Your task to perform on an android device: Go to CNN.com Image 0: 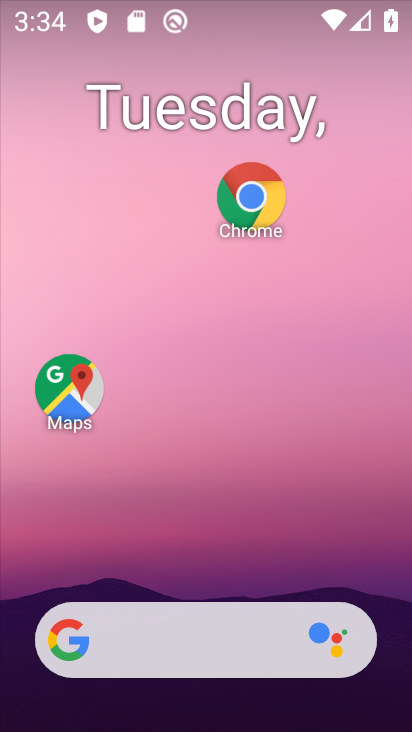
Step 0: click (136, 641)
Your task to perform on an android device: Go to CNN.com Image 1: 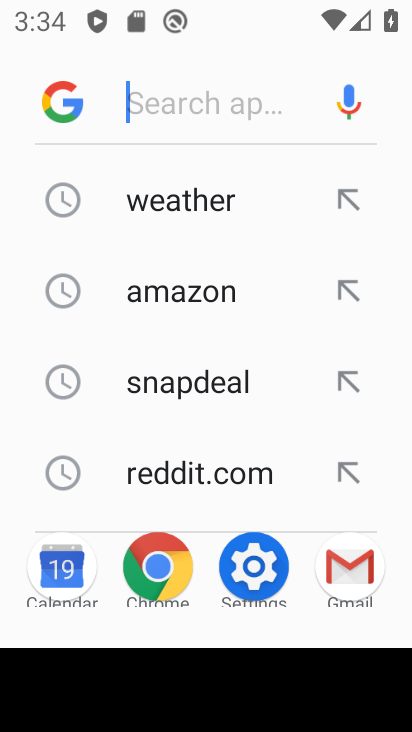
Step 1: drag from (200, 430) to (225, 203)
Your task to perform on an android device: Go to CNN.com Image 2: 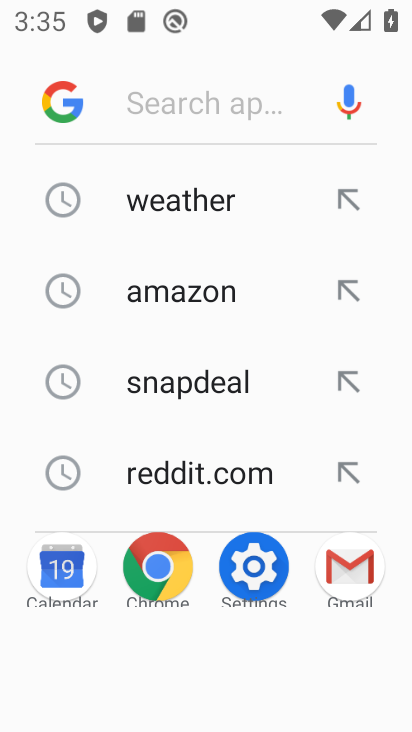
Step 2: type "CNN.com"
Your task to perform on an android device: Go to CNN.com Image 3: 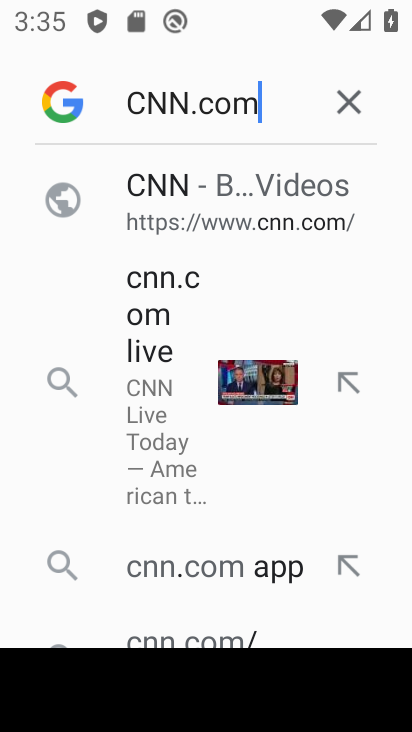
Step 3: click (162, 181)
Your task to perform on an android device: Go to CNN.com Image 4: 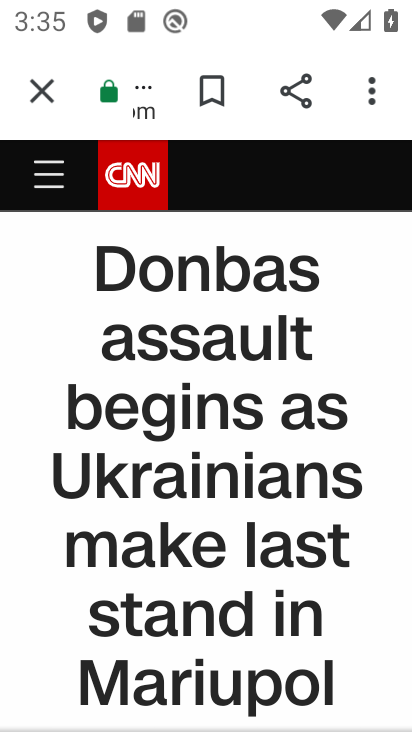
Step 4: task complete